Your task to perform on an android device: Check the weather Image 0: 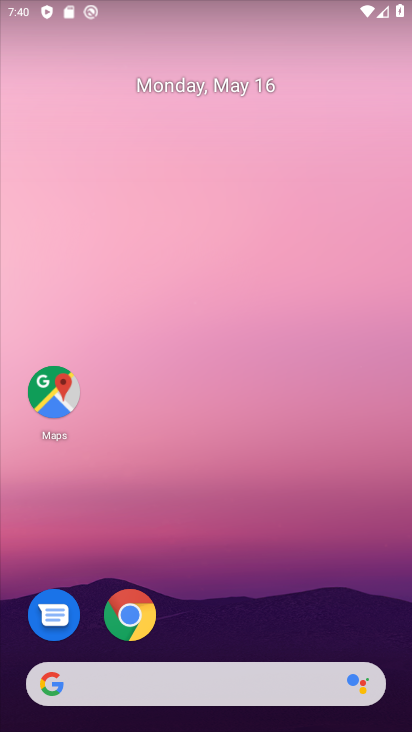
Step 0: drag from (249, 643) to (291, 194)
Your task to perform on an android device: Check the weather Image 1: 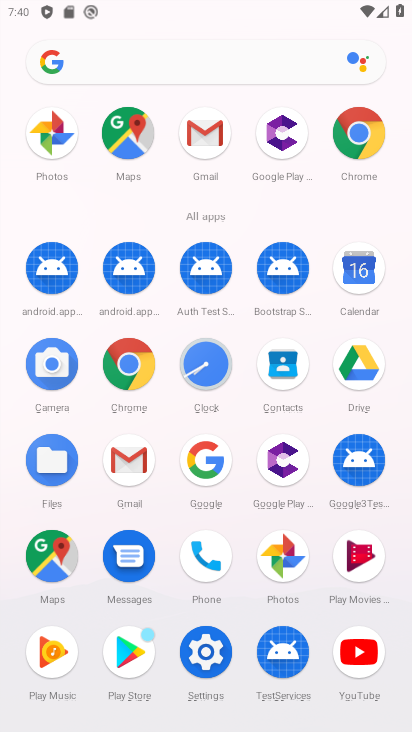
Step 1: drag from (204, 522) to (282, 171)
Your task to perform on an android device: Check the weather Image 2: 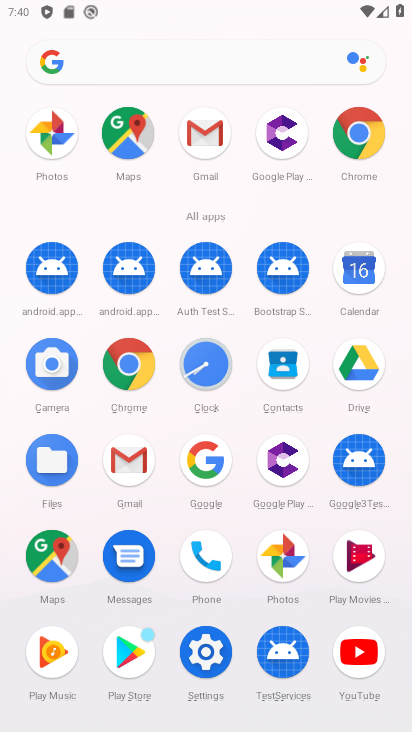
Step 2: click (130, 389)
Your task to perform on an android device: Check the weather Image 3: 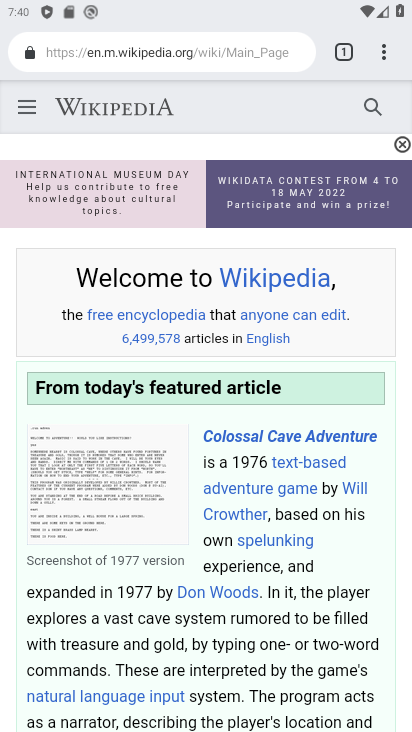
Step 3: click (268, 55)
Your task to perform on an android device: Check the weather Image 4: 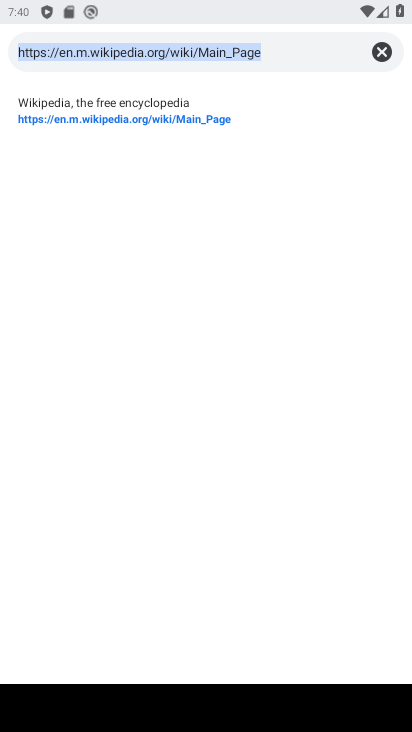
Step 4: type "weather"
Your task to perform on an android device: Check the weather Image 5: 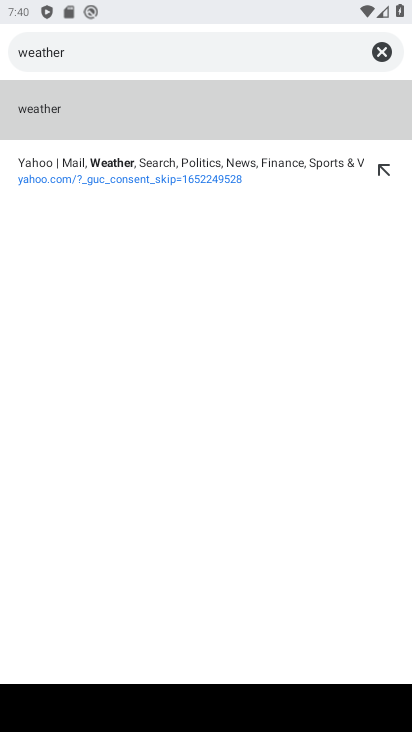
Step 5: click (195, 103)
Your task to perform on an android device: Check the weather Image 6: 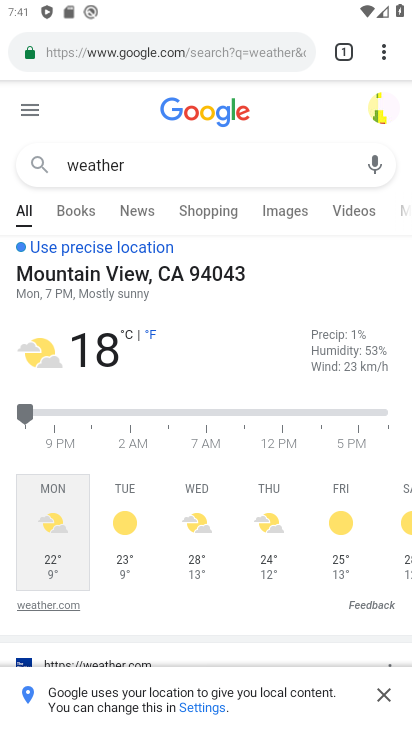
Step 6: task complete